Your task to perform on an android device: Open Chrome and go to the settings page Image 0: 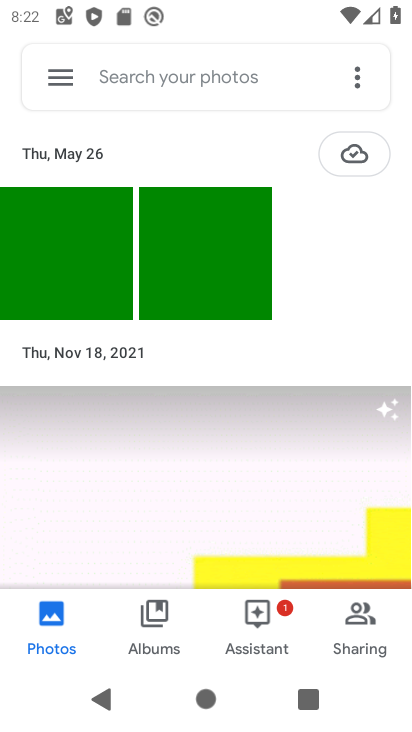
Step 0: press home button
Your task to perform on an android device: Open Chrome and go to the settings page Image 1: 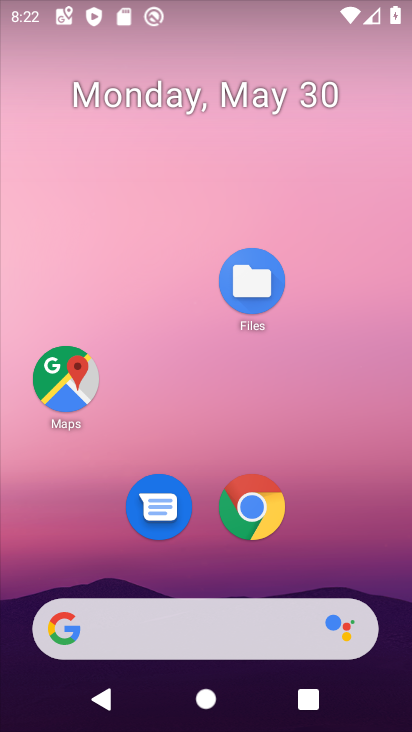
Step 1: click (254, 507)
Your task to perform on an android device: Open Chrome and go to the settings page Image 2: 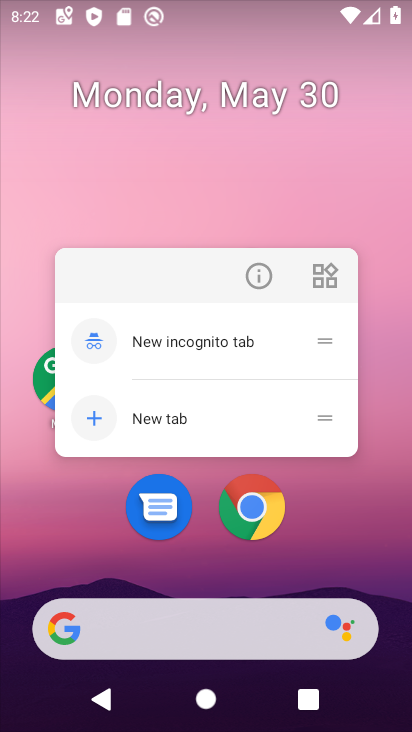
Step 2: click (267, 498)
Your task to perform on an android device: Open Chrome and go to the settings page Image 3: 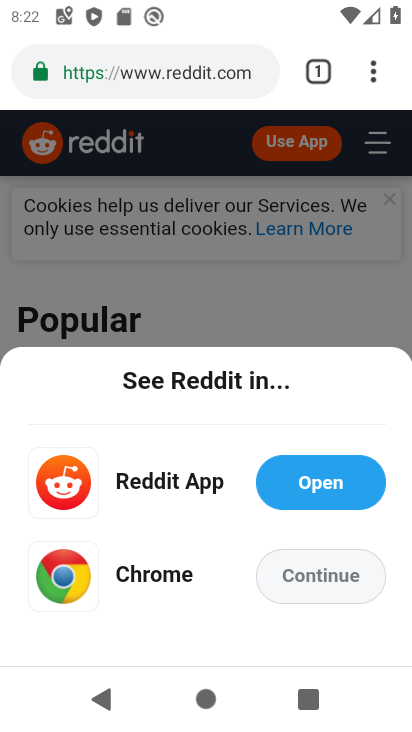
Step 3: click (377, 62)
Your task to perform on an android device: Open Chrome and go to the settings page Image 4: 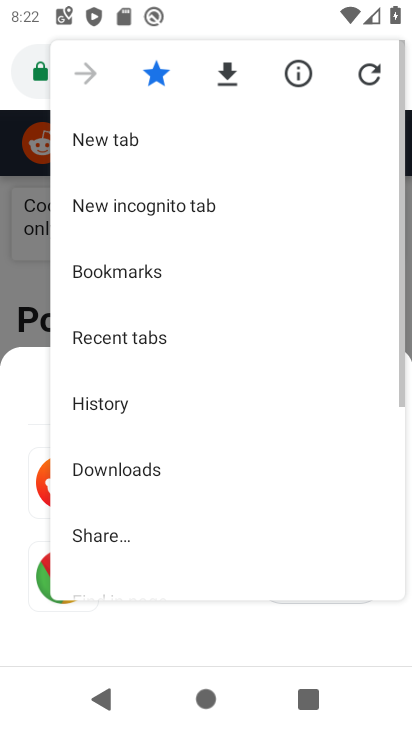
Step 4: drag from (136, 504) to (157, 161)
Your task to perform on an android device: Open Chrome and go to the settings page Image 5: 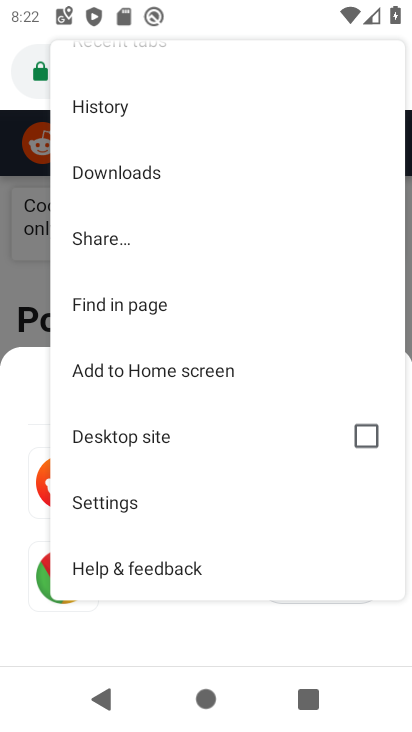
Step 5: click (131, 515)
Your task to perform on an android device: Open Chrome and go to the settings page Image 6: 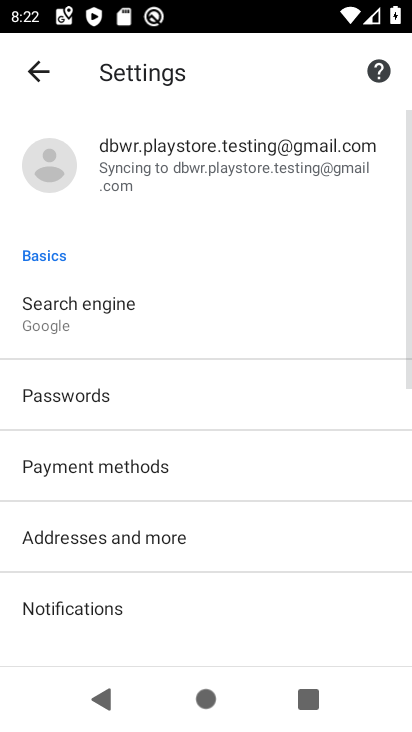
Step 6: task complete